Your task to perform on an android device: change the clock display to digital Image 0: 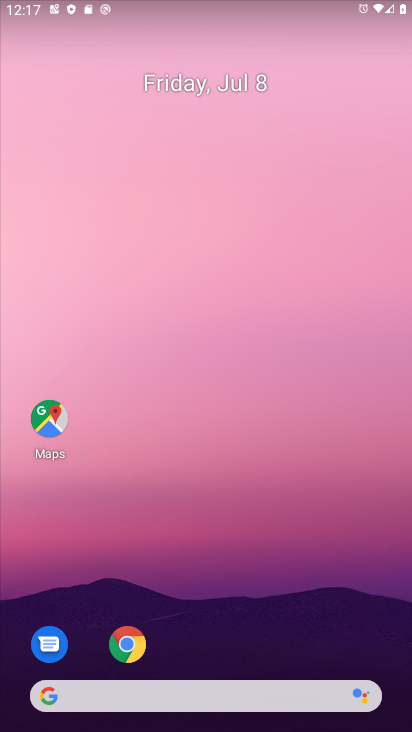
Step 0: drag from (207, 665) to (267, 27)
Your task to perform on an android device: change the clock display to digital Image 1: 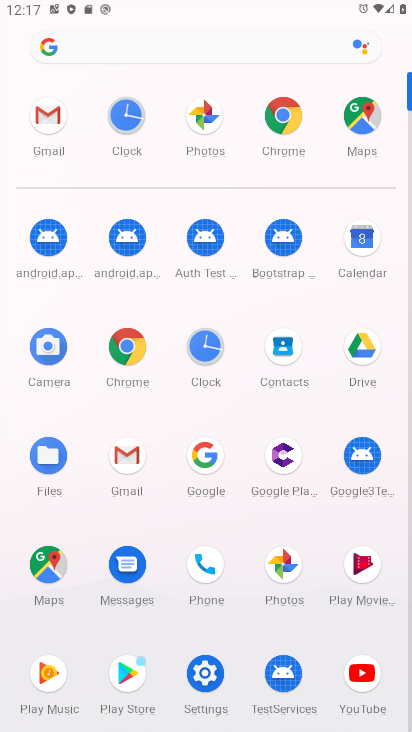
Step 1: click (208, 357)
Your task to perform on an android device: change the clock display to digital Image 2: 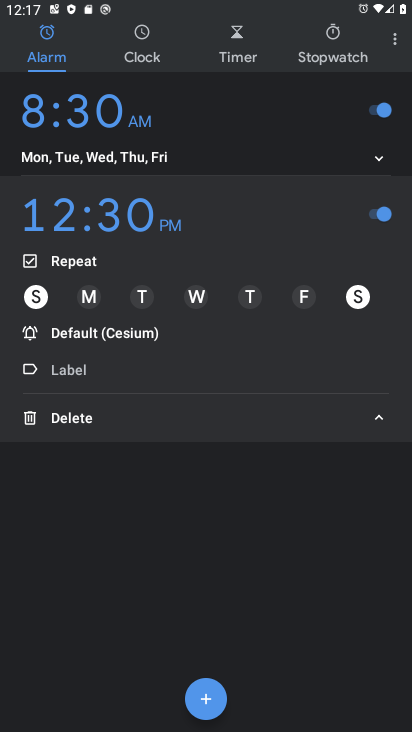
Step 2: click (374, 74)
Your task to perform on an android device: change the clock display to digital Image 3: 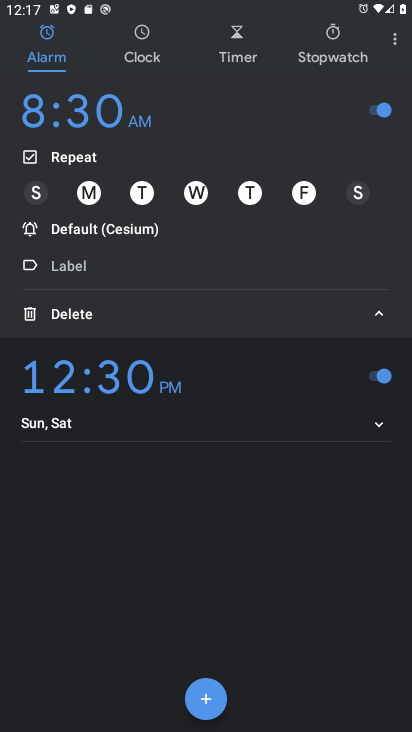
Step 3: click (401, 35)
Your task to perform on an android device: change the clock display to digital Image 4: 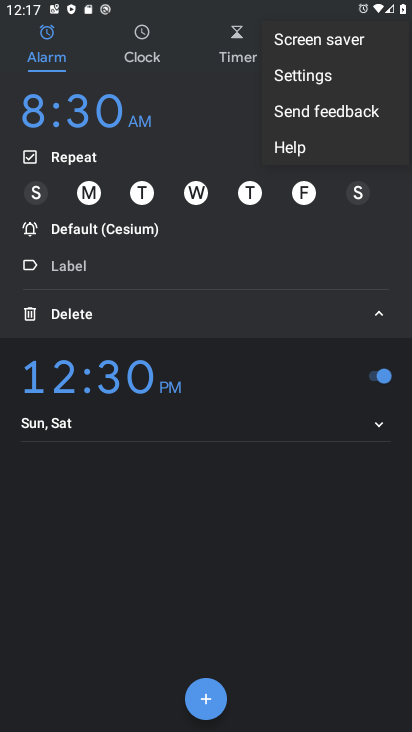
Step 4: click (324, 80)
Your task to perform on an android device: change the clock display to digital Image 5: 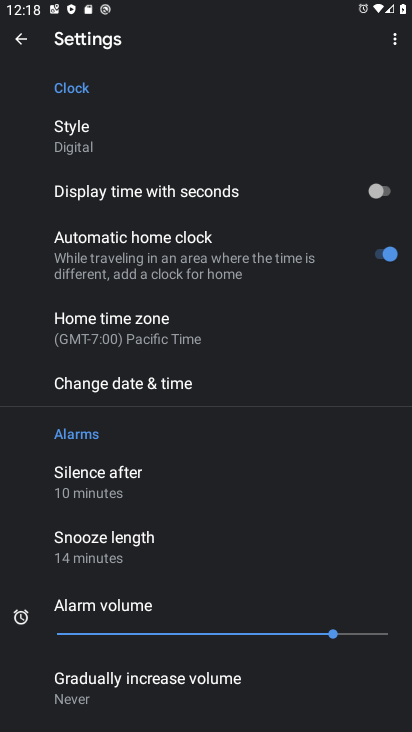
Step 5: task complete